Your task to perform on an android device: toggle javascript in the chrome app Image 0: 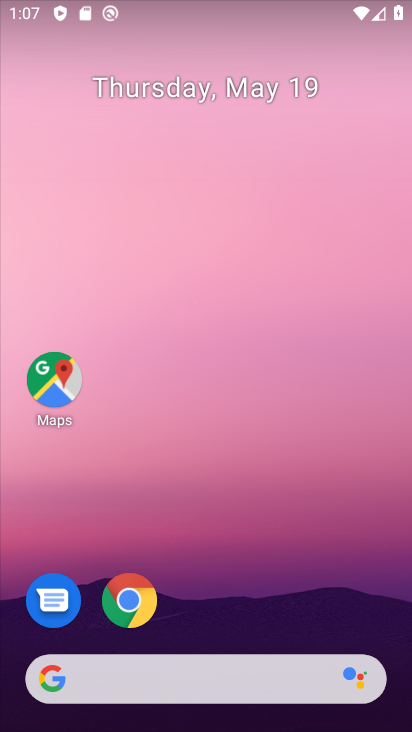
Step 0: click (119, 592)
Your task to perform on an android device: toggle javascript in the chrome app Image 1: 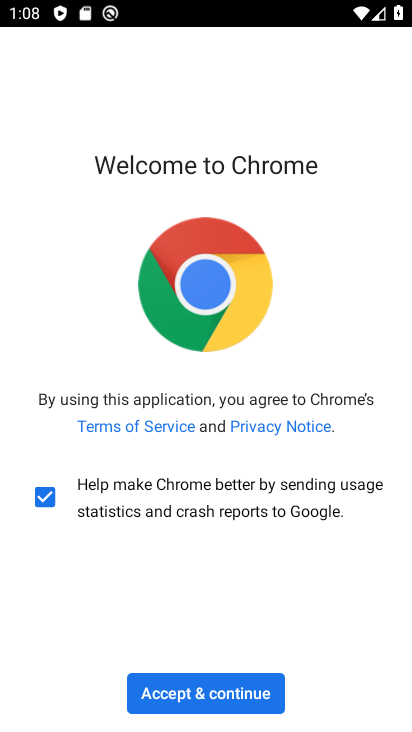
Step 1: click (240, 692)
Your task to perform on an android device: toggle javascript in the chrome app Image 2: 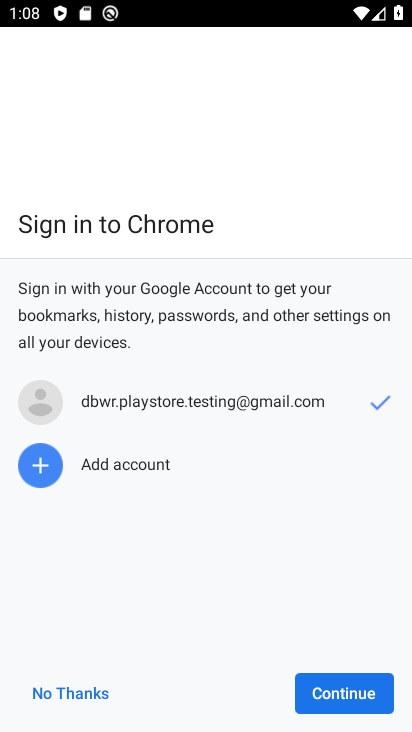
Step 2: click (360, 689)
Your task to perform on an android device: toggle javascript in the chrome app Image 3: 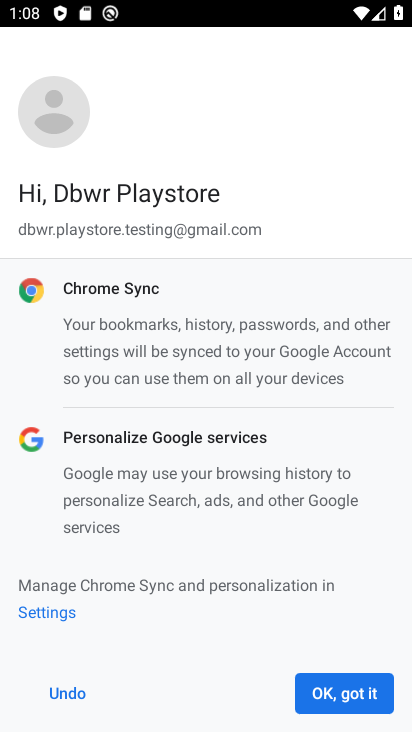
Step 3: click (360, 689)
Your task to perform on an android device: toggle javascript in the chrome app Image 4: 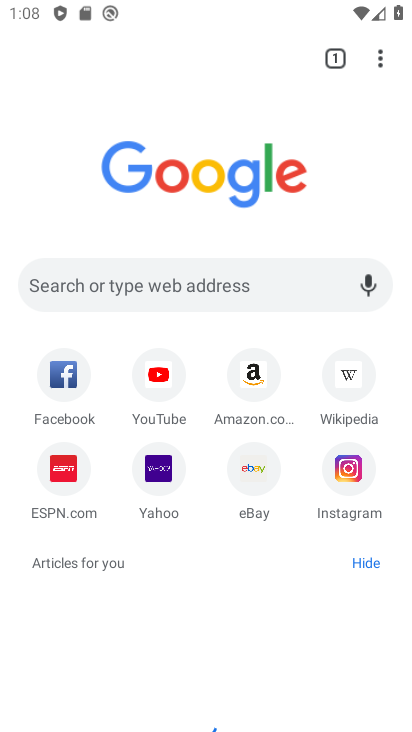
Step 4: click (386, 62)
Your task to perform on an android device: toggle javascript in the chrome app Image 5: 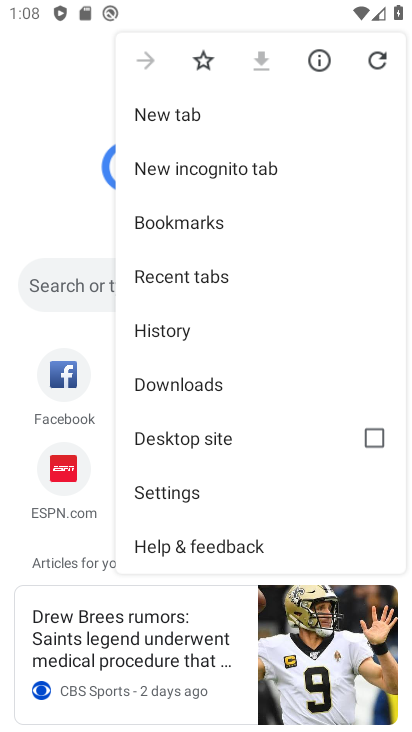
Step 5: click (173, 480)
Your task to perform on an android device: toggle javascript in the chrome app Image 6: 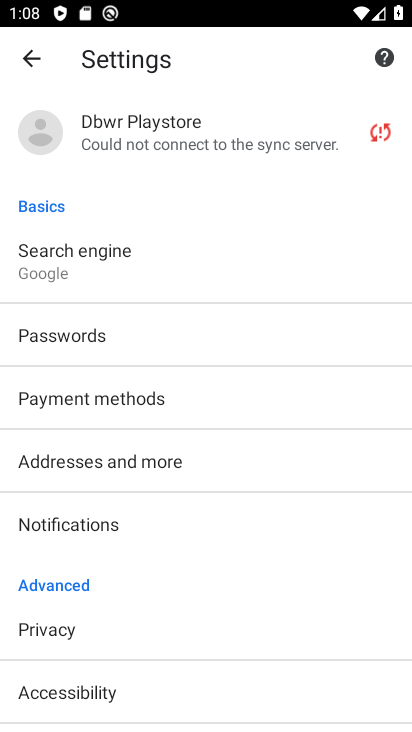
Step 6: drag from (216, 626) to (184, 336)
Your task to perform on an android device: toggle javascript in the chrome app Image 7: 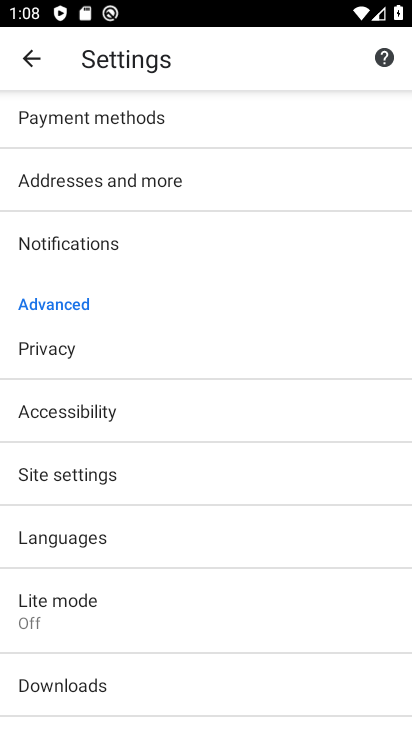
Step 7: click (123, 470)
Your task to perform on an android device: toggle javascript in the chrome app Image 8: 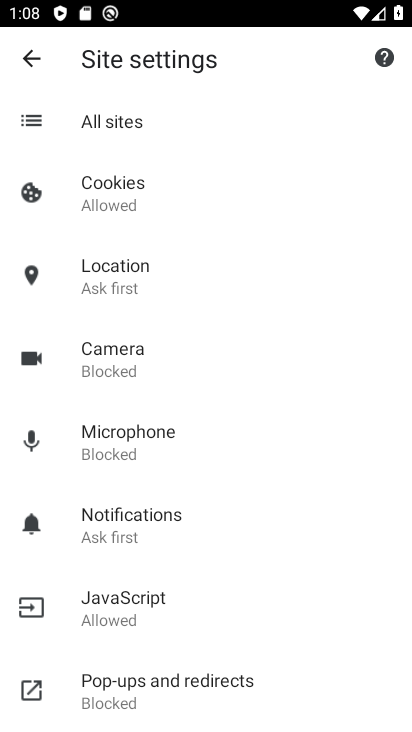
Step 8: click (173, 607)
Your task to perform on an android device: toggle javascript in the chrome app Image 9: 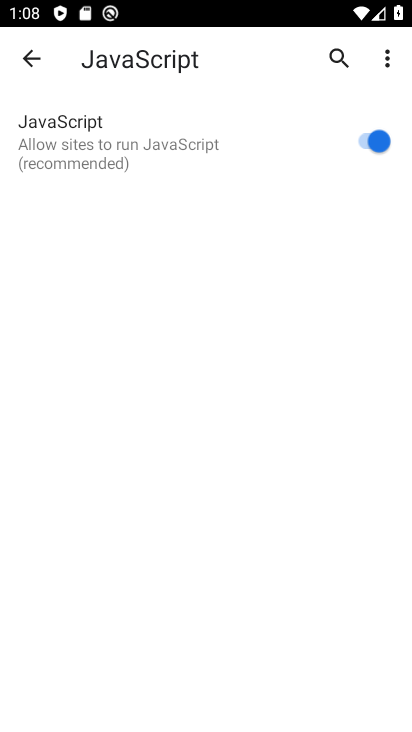
Step 9: click (367, 138)
Your task to perform on an android device: toggle javascript in the chrome app Image 10: 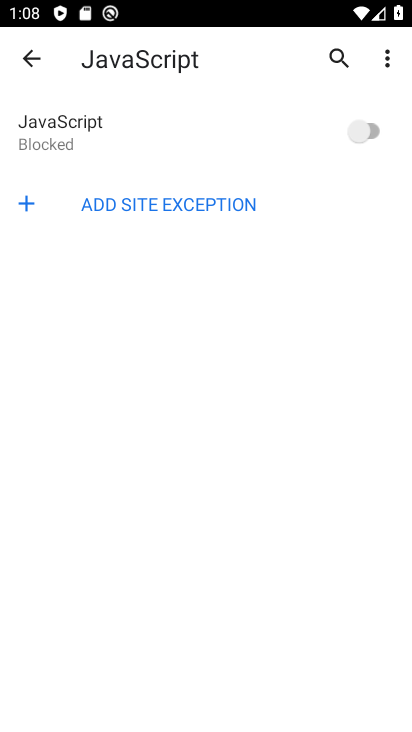
Step 10: task complete